Your task to perform on an android device: add a contact Image 0: 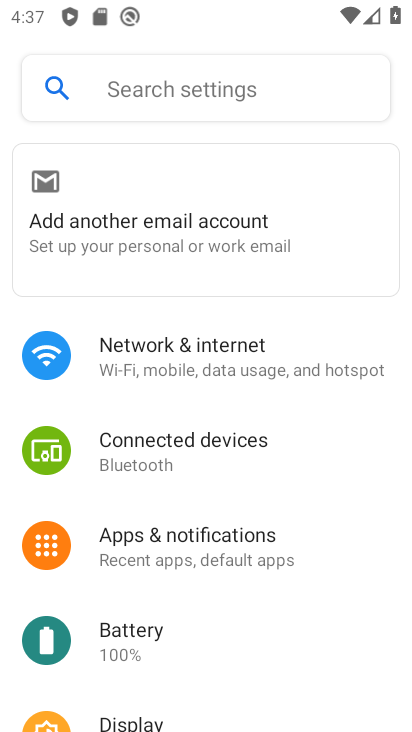
Step 0: press home button
Your task to perform on an android device: add a contact Image 1: 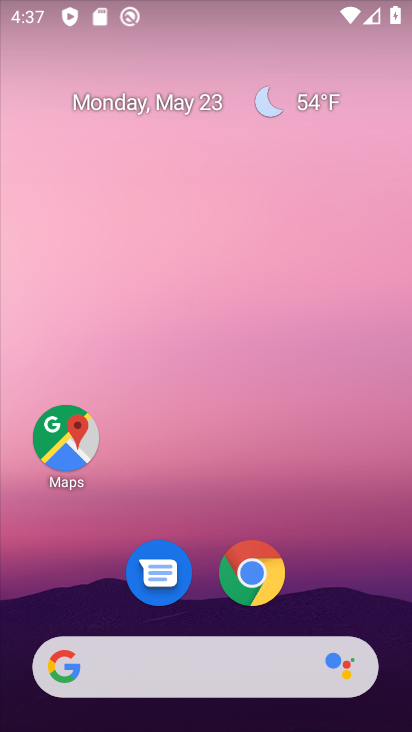
Step 1: drag from (194, 713) to (198, 238)
Your task to perform on an android device: add a contact Image 2: 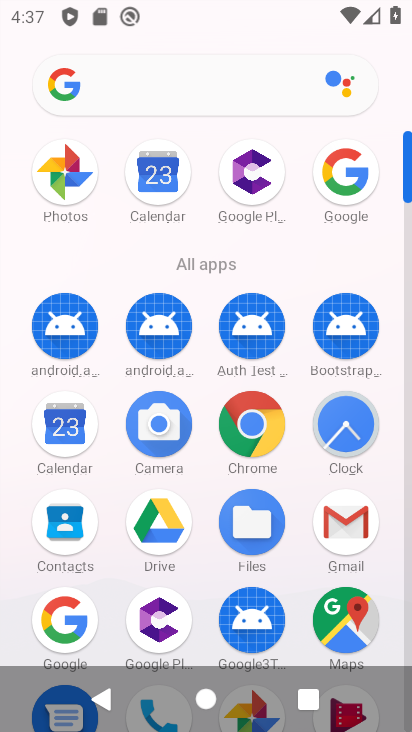
Step 2: click (63, 525)
Your task to perform on an android device: add a contact Image 3: 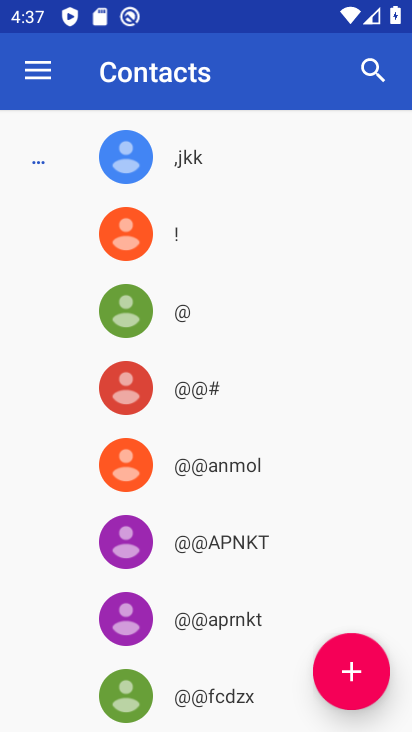
Step 3: click (357, 674)
Your task to perform on an android device: add a contact Image 4: 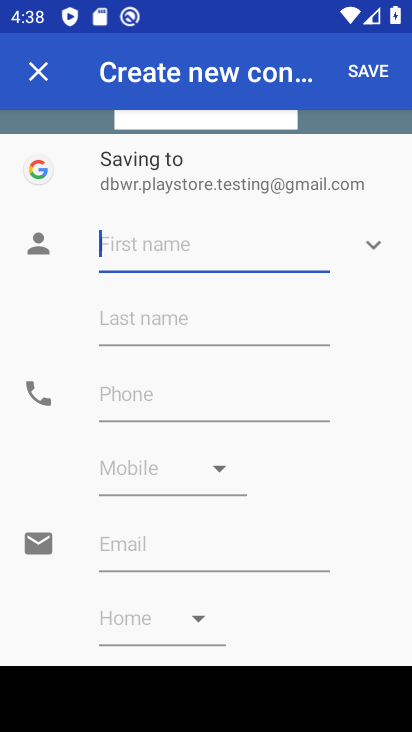
Step 4: type "uuuuu"
Your task to perform on an android device: add a contact Image 5: 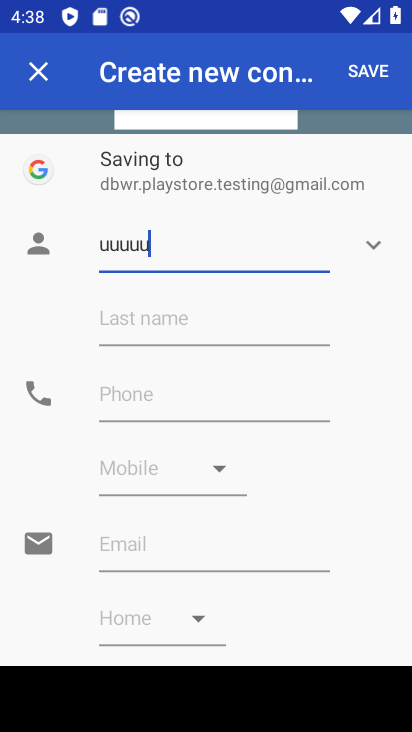
Step 5: type ""
Your task to perform on an android device: add a contact Image 6: 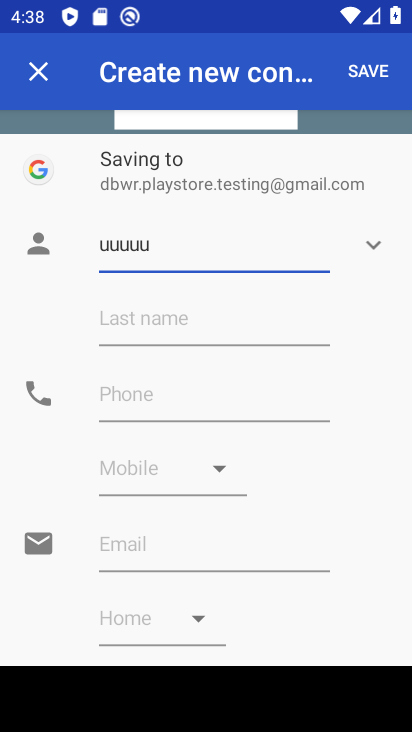
Step 6: click (136, 400)
Your task to perform on an android device: add a contact Image 7: 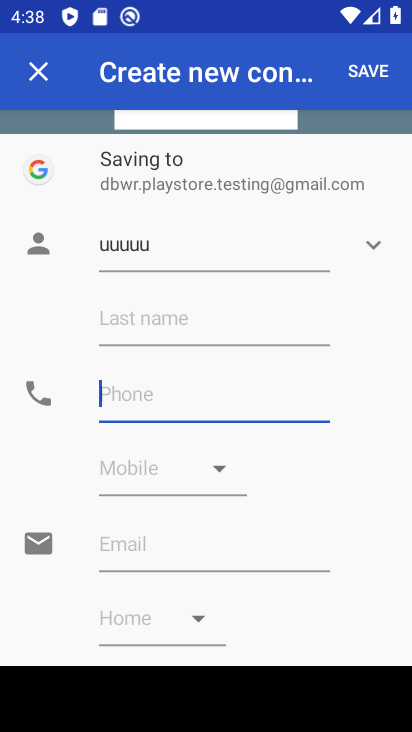
Step 7: type "987655"
Your task to perform on an android device: add a contact Image 8: 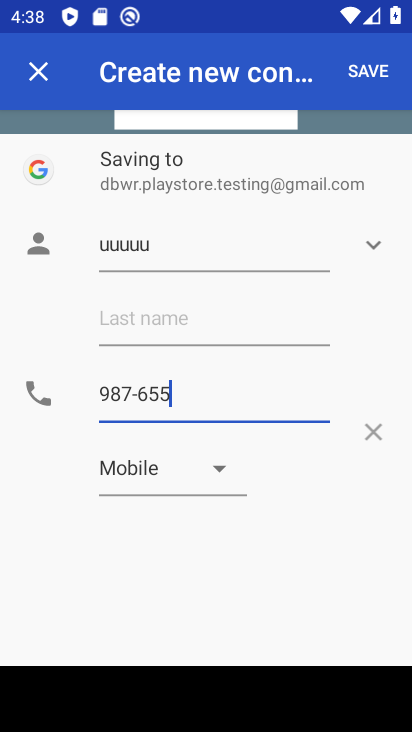
Step 8: type ""
Your task to perform on an android device: add a contact Image 9: 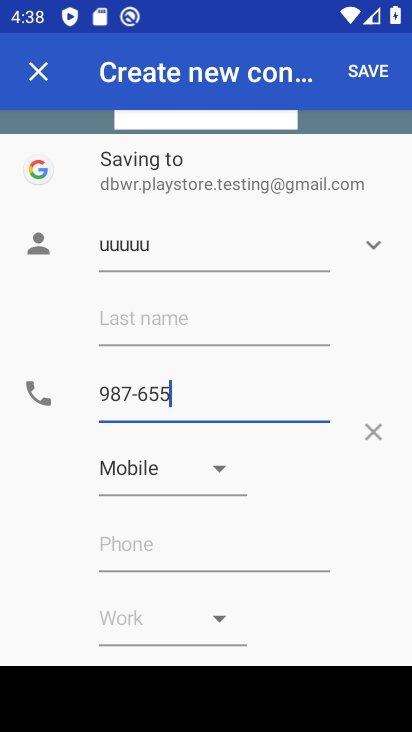
Step 9: click (371, 73)
Your task to perform on an android device: add a contact Image 10: 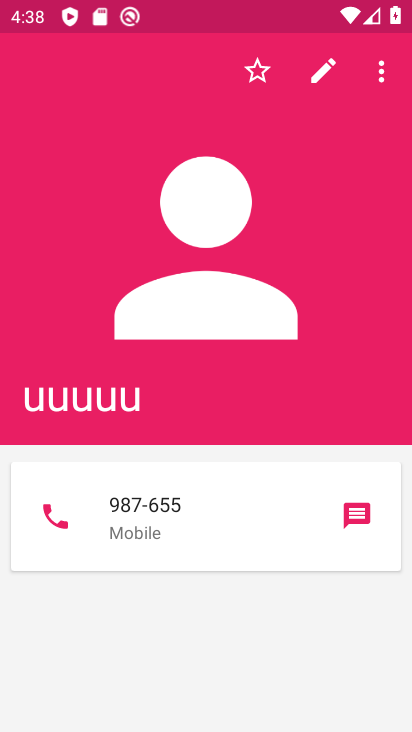
Step 10: task complete